Your task to perform on an android device: find snoozed emails in the gmail app Image 0: 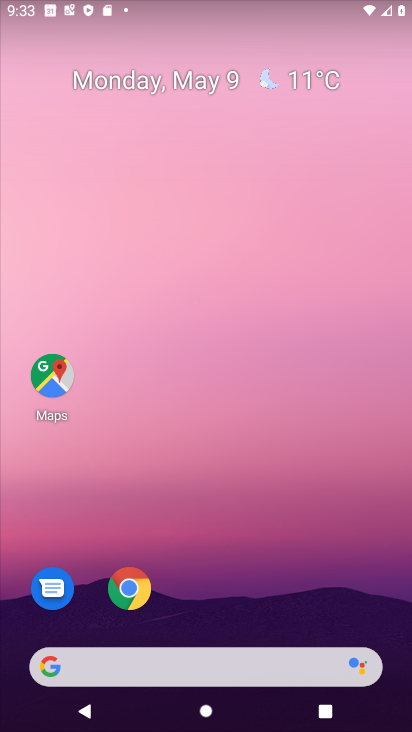
Step 0: press home button
Your task to perform on an android device: find snoozed emails in the gmail app Image 1: 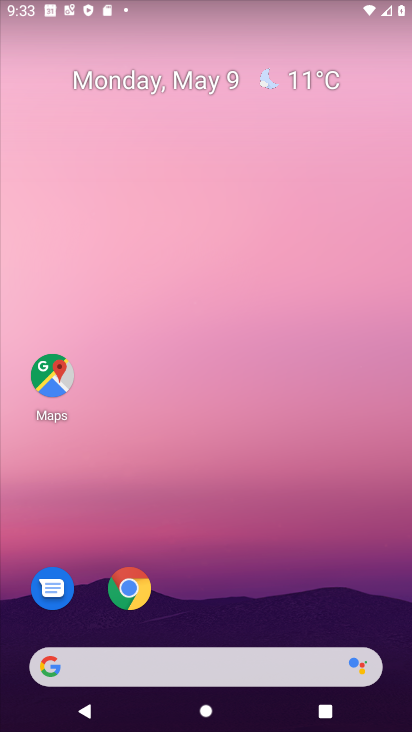
Step 1: drag from (143, 675) to (323, 154)
Your task to perform on an android device: find snoozed emails in the gmail app Image 2: 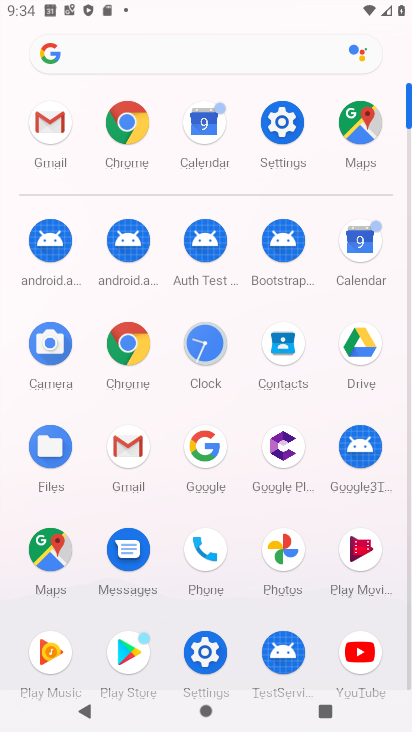
Step 2: click (53, 132)
Your task to perform on an android device: find snoozed emails in the gmail app Image 3: 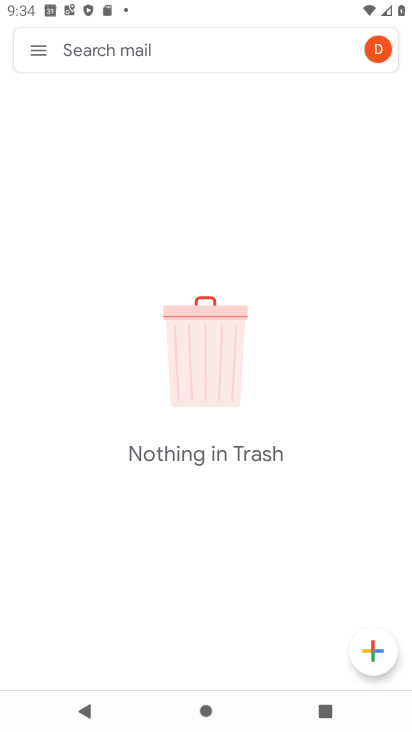
Step 3: click (36, 58)
Your task to perform on an android device: find snoozed emails in the gmail app Image 4: 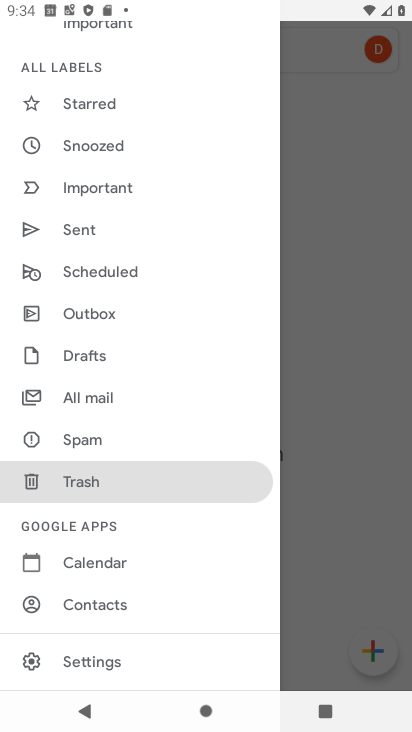
Step 4: click (106, 145)
Your task to perform on an android device: find snoozed emails in the gmail app Image 5: 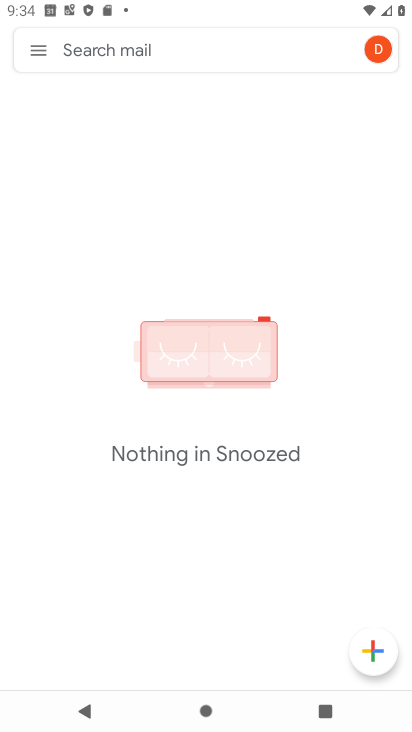
Step 5: task complete